Your task to perform on an android device: Open ESPN.com Image 0: 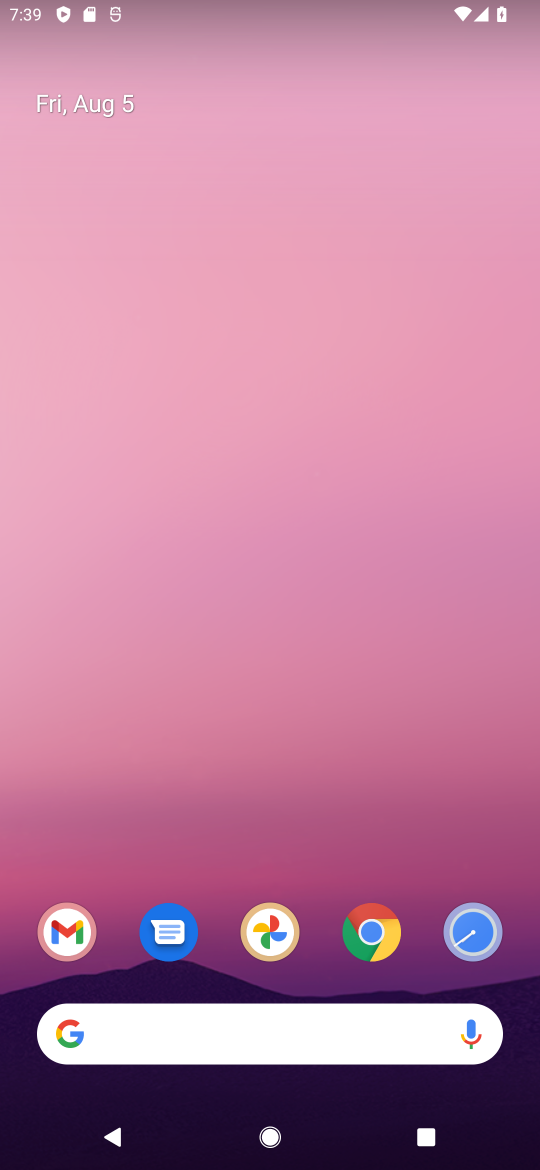
Step 0: drag from (373, 850) to (347, 104)
Your task to perform on an android device: Open ESPN.com Image 1: 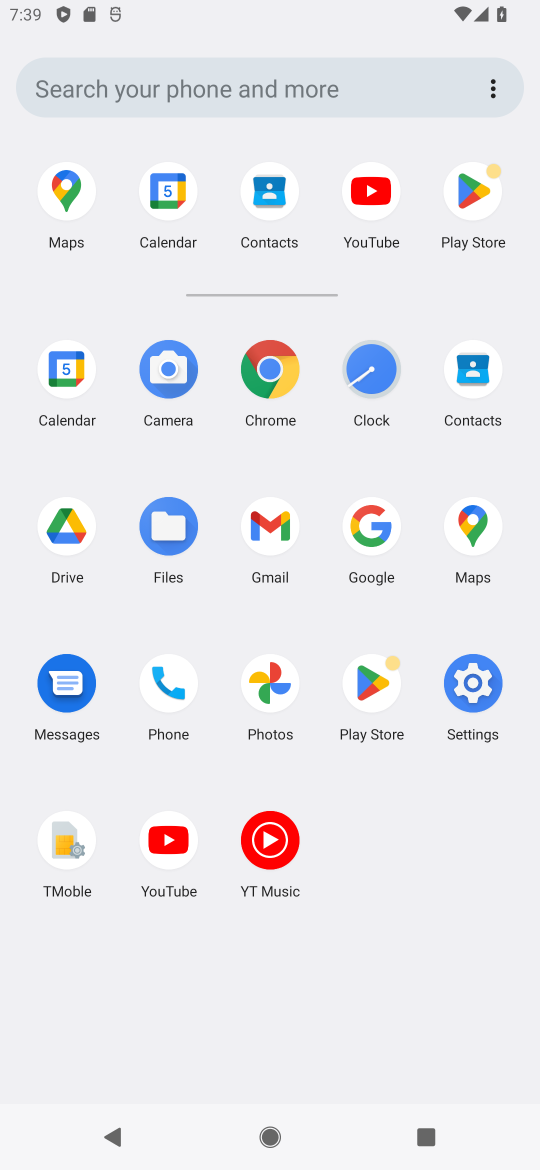
Step 1: click (266, 363)
Your task to perform on an android device: Open ESPN.com Image 2: 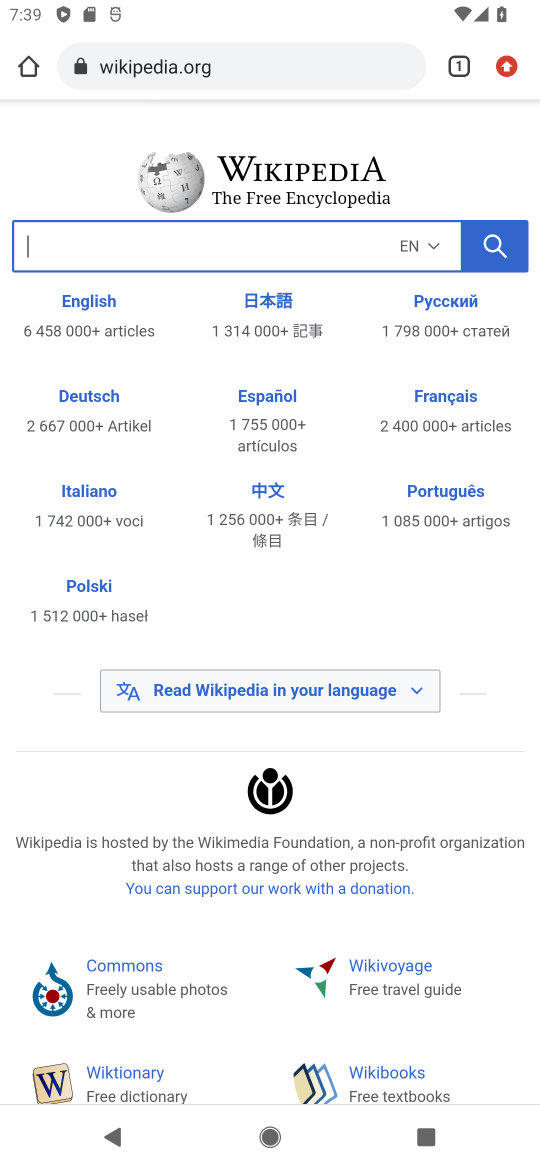
Step 2: click (285, 48)
Your task to perform on an android device: Open ESPN.com Image 3: 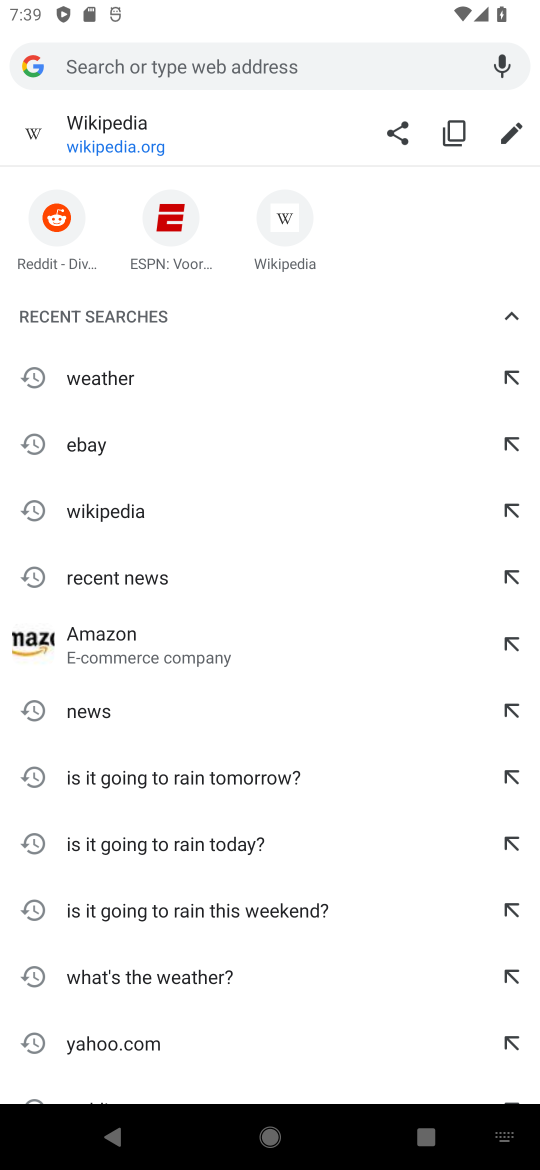
Step 3: click (180, 222)
Your task to perform on an android device: Open ESPN.com Image 4: 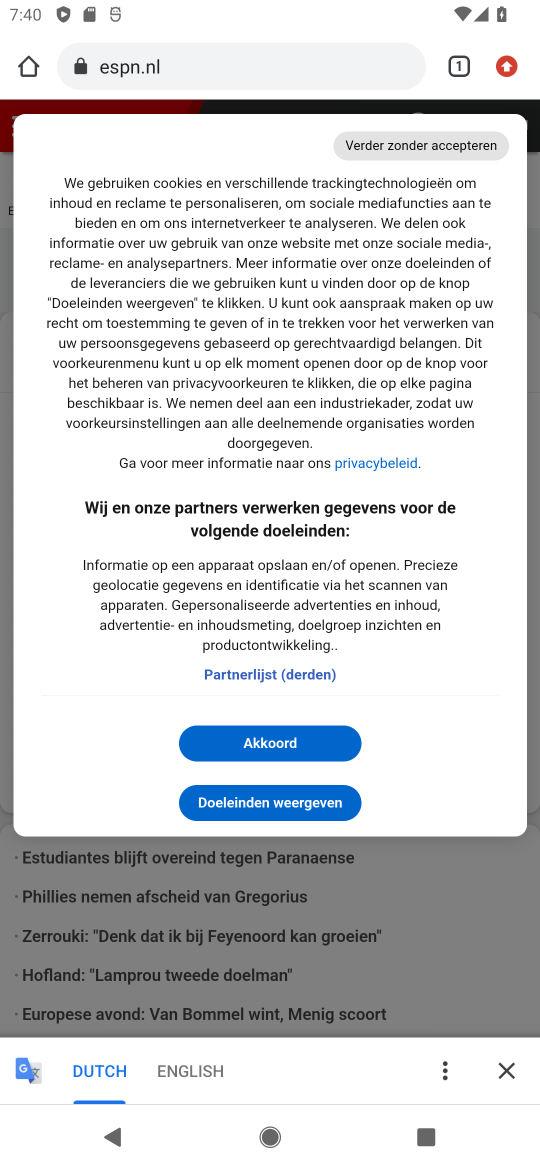
Step 4: task complete